Your task to perform on an android device: Go to notification settings Image 0: 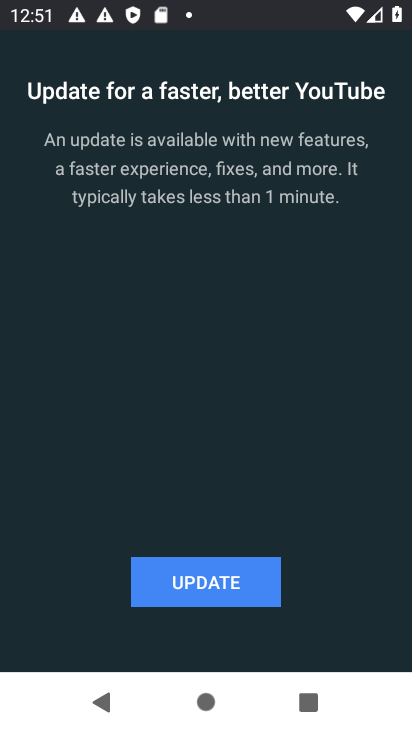
Step 0: press home button
Your task to perform on an android device: Go to notification settings Image 1: 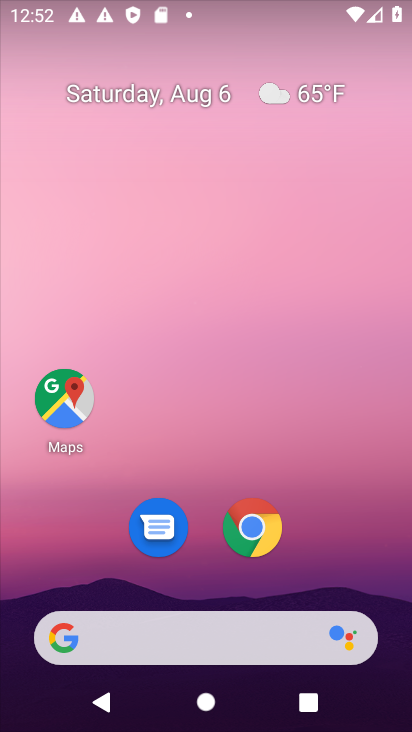
Step 1: drag from (160, 611) to (184, 16)
Your task to perform on an android device: Go to notification settings Image 2: 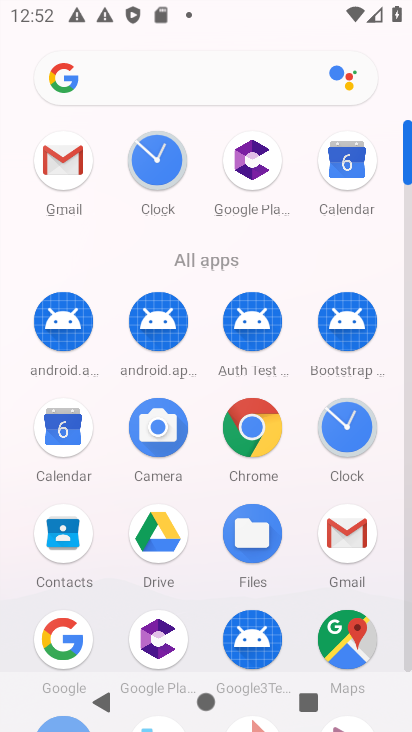
Step 2: drag from (371, 568) to (360, 159)
Your task to perform on an android device: Go to notification settings Image 3: 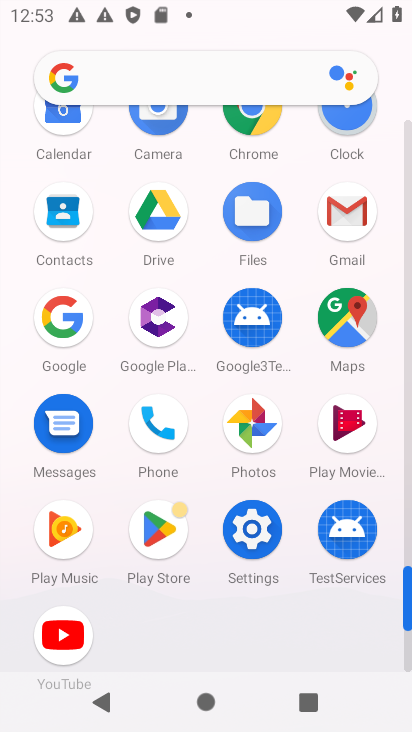
Step 3: click (245, 523)
Your task to perform on an android device: Go to notification settings Image 4: 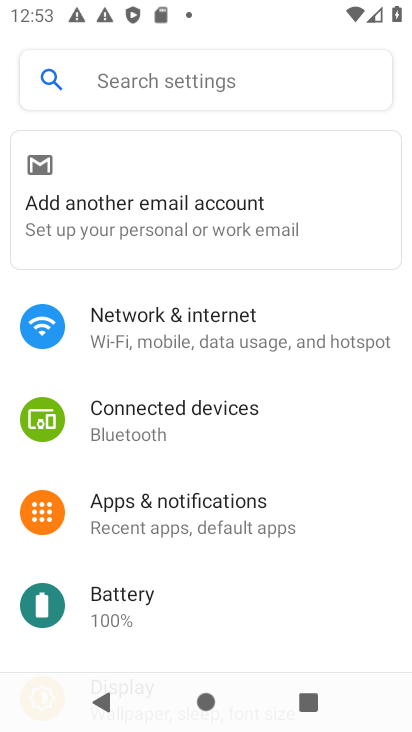
Step 4: click (203, 517)
Your task to perform on an android device: Go to notification settings Image 5: 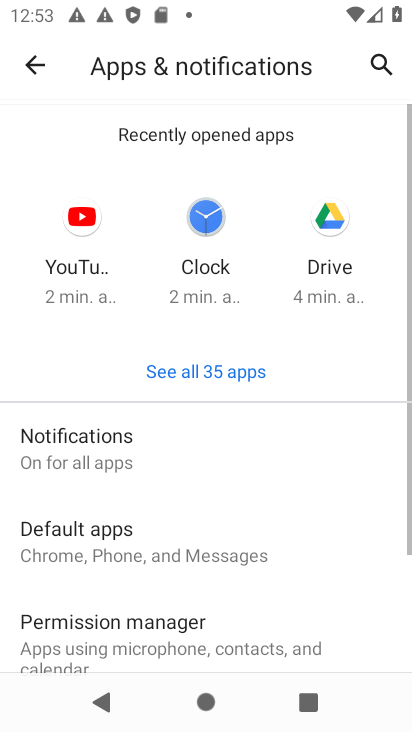
Step 5: click (95, 451)
Your task to perform on an android device: Go to notification settings Image 6: 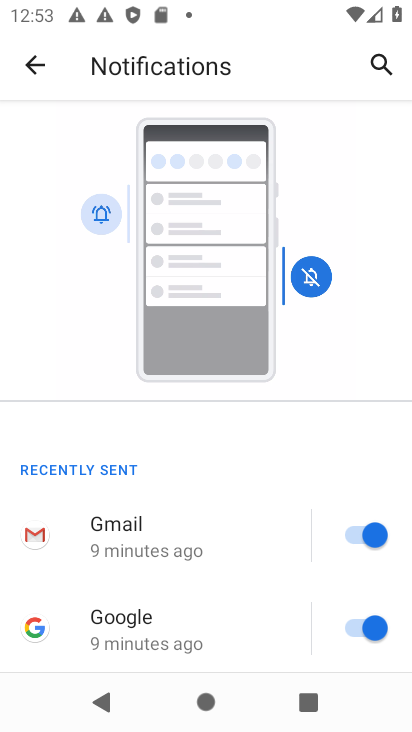
Step 6: task complete